Your task to perform on an android device: open a new tab in the chrome app Image 0: 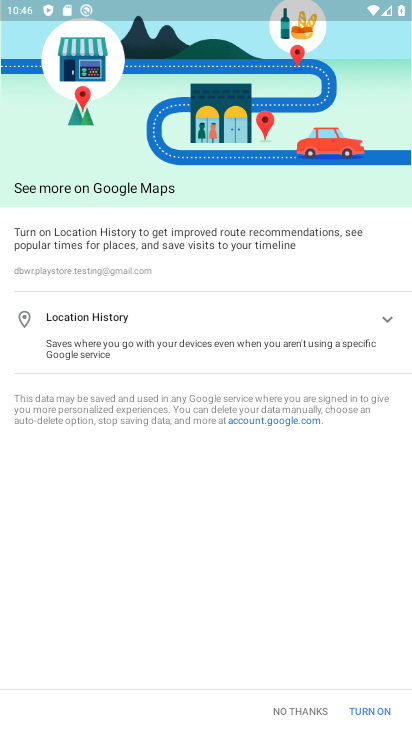
Step 0: press back button
Your task to perform on an android device: open a new tab in the chrome app Image 1: 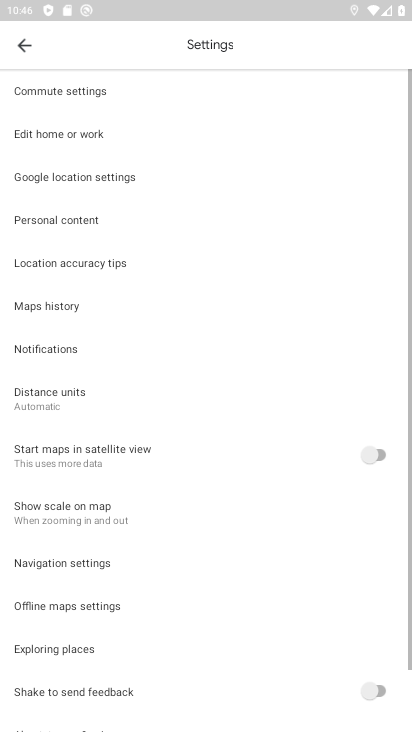
Step 1: press back button
Your task to perform on an android device: open a new tab in the chrome app Image 2: 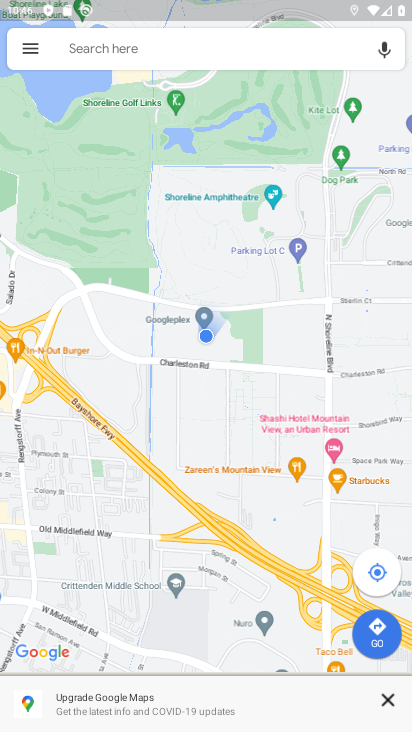
Step 2: press back button
Your task to perform on an android device: open a new tab in the chrome app Image 3: 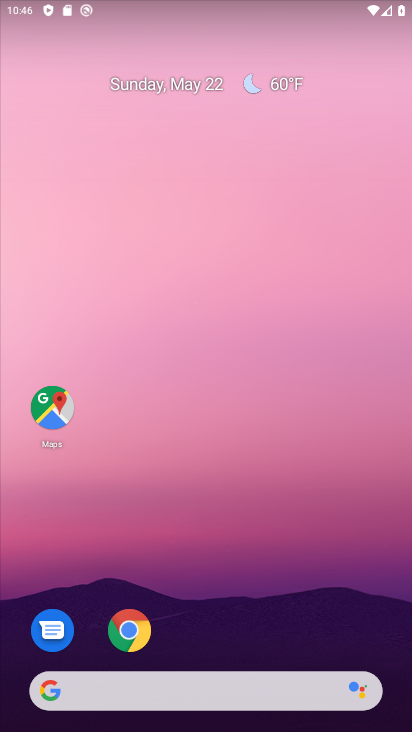
Step 3: click (129, 629)
Your task to perform on an android device: open a new tab in the chrome app Image 4: 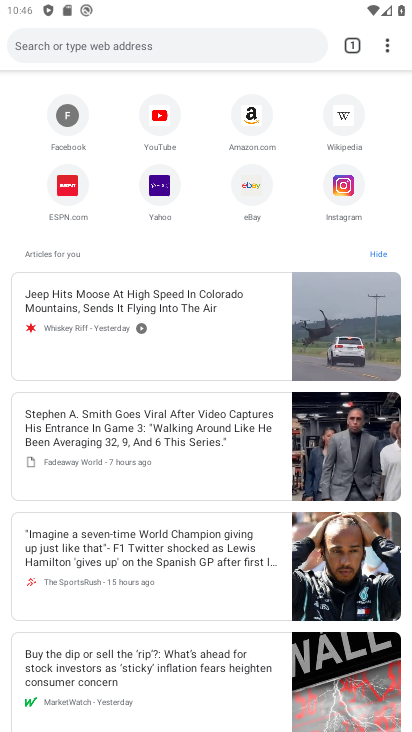
Step 4: click (389, 44)
Your task to perform on an android device: open a new tab in the chrome app Image 5: 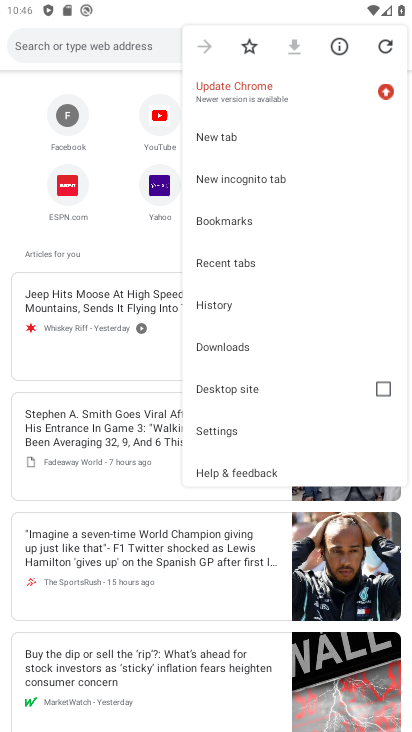
Step 5: click (239, 139)
Your task to perform on an android device: open a new tab in the chrome app Image 6: 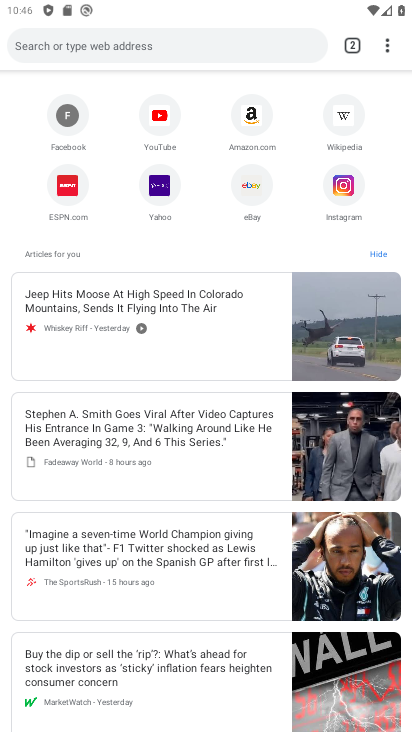
Step 6: task complete